Your task to perform on an android device: Go to Reddit.com Image 0: 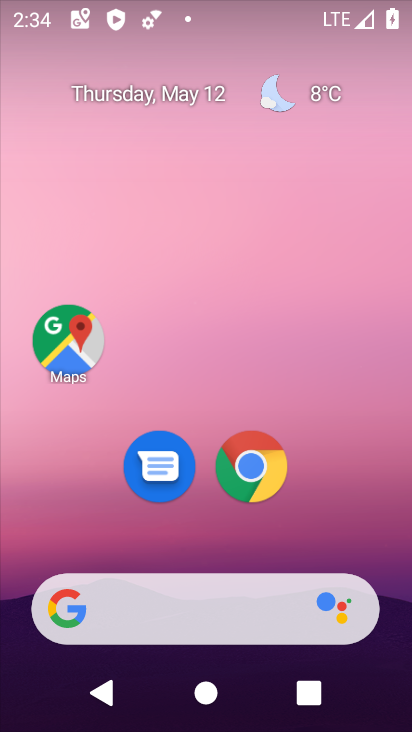
Step 0: click (258, 457)
Your task to perform on an android device: Go to Reddit.com Image 1: 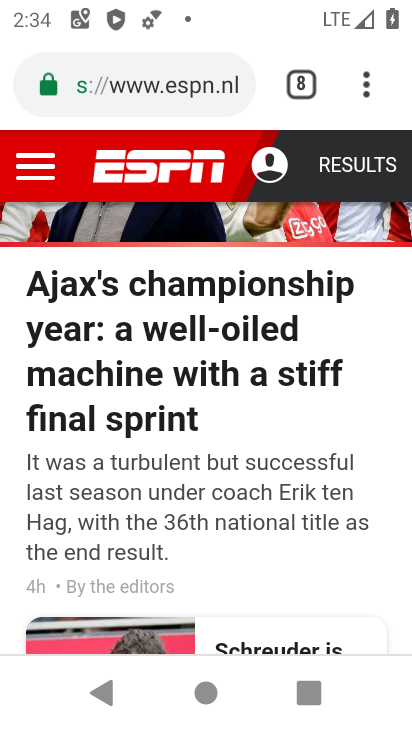
Step 1: click (303, 77)
Your task to perform on an android device: Go to Reddit.com Image 2: 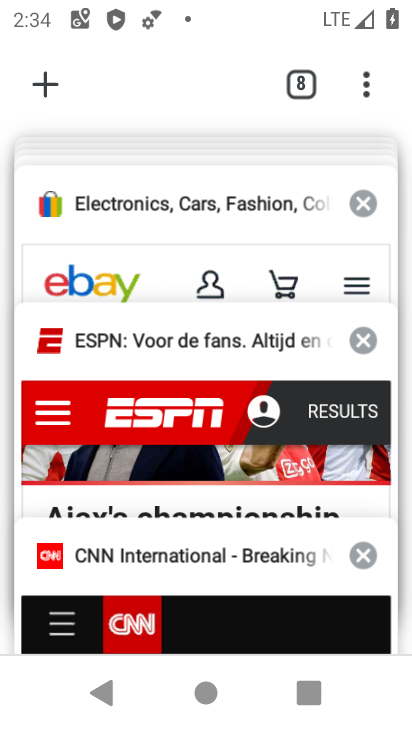
Step 2: drag from (131, 212) to (143, 510)
Your task to perform on an android device: Go to Reddit.com Image 3: 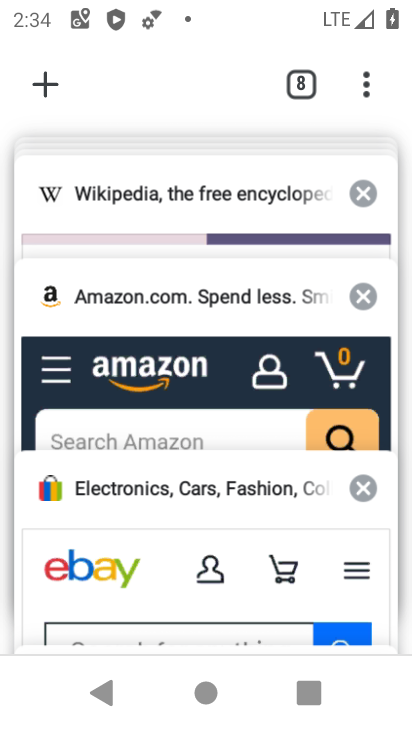
Step 3: drag from (112, 217) to (111, 470)
Your task to perform on an android device: Go to Reddit.com Image 4: 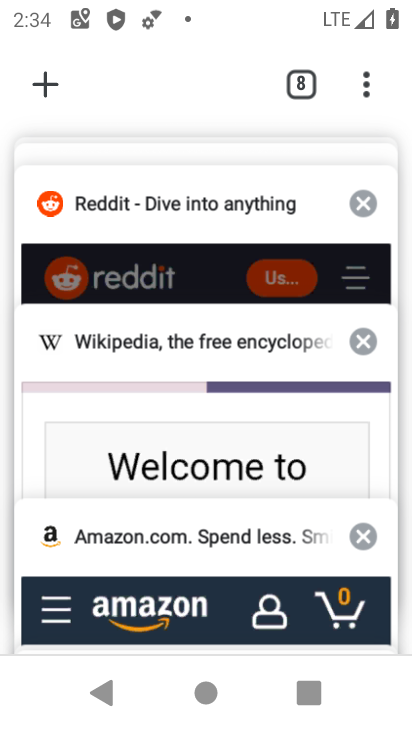
Step 4: click (98, 274)
Your task to perform on an android device: Go to Reddit.com Image 5: 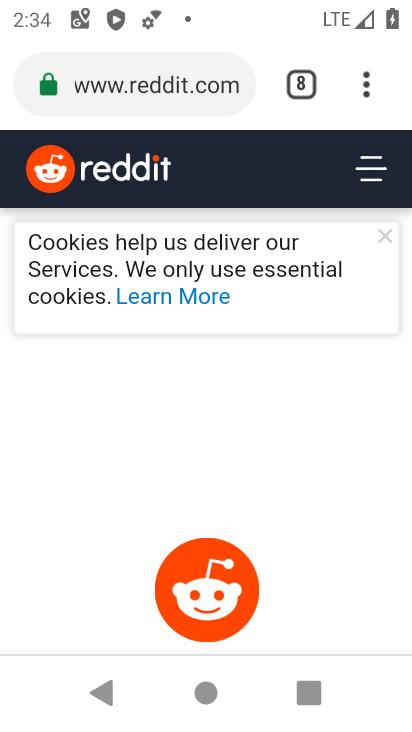
Step 5: drag from (260, 581) to (235, 231)
Your task to perform on an android device: Go to Reddit.com Image 6: 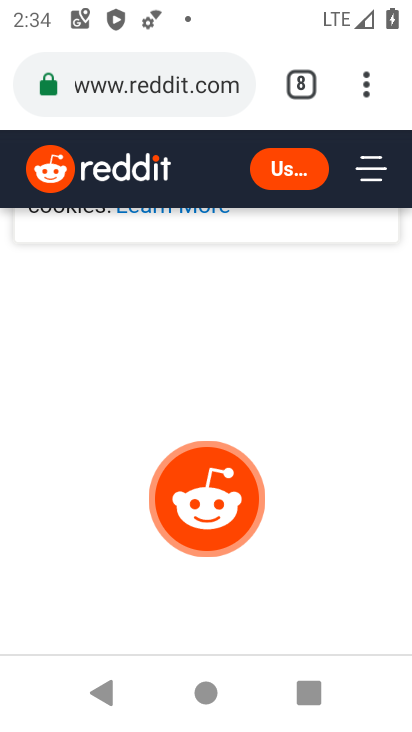
Step 6: drag from (208, 284) to (193, 613)
Your task to perform on an android device: Go to Reddit.com Image 7: 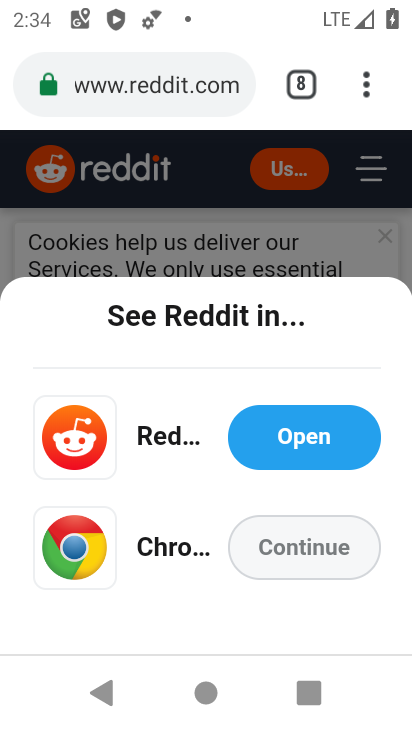
Step 7: click (297, 545)
Your task to perform on an android device: Go to Reddit.com Image 8: 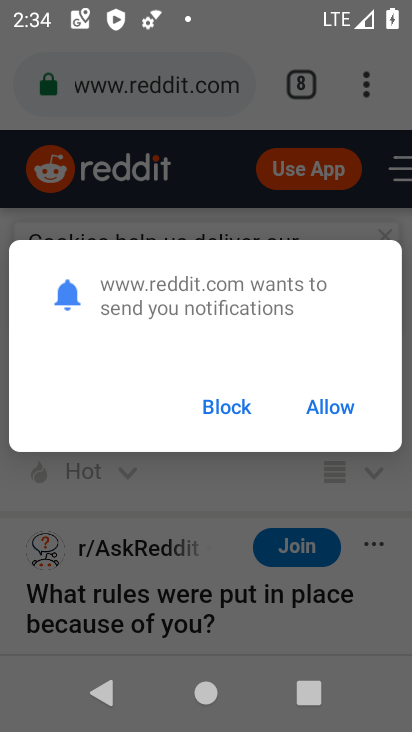
Step 8: click (227, 410)
Your task to perform on an android device: Go to Reddit.com Image 9: 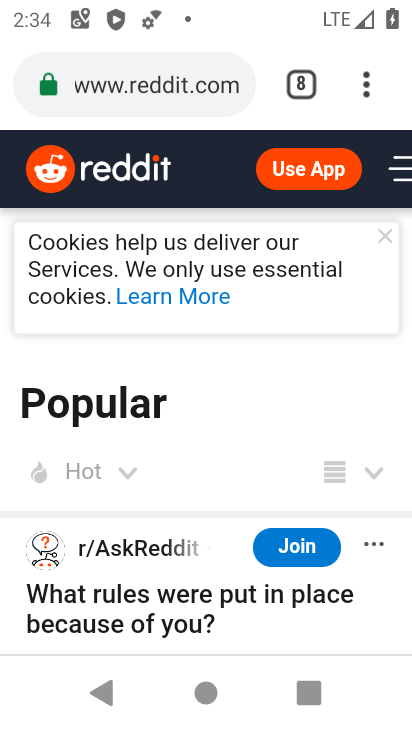
Step 9: task complete